Your task to perform on an android device: Go to Amazon Image 0: 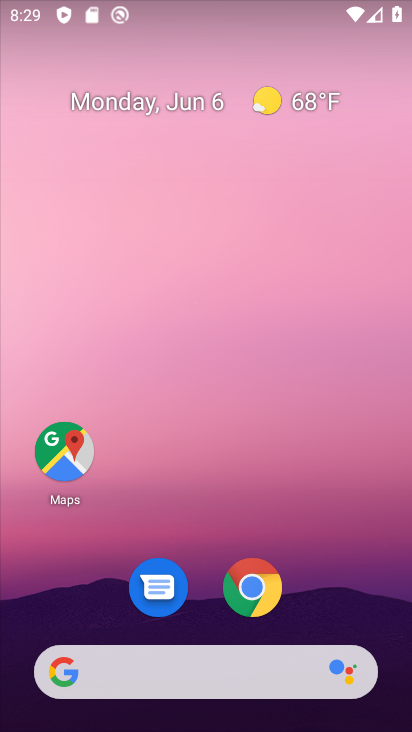
Step 0: click (250, 602)
Your task to perform on an android device: Go to Amazon Image 1: 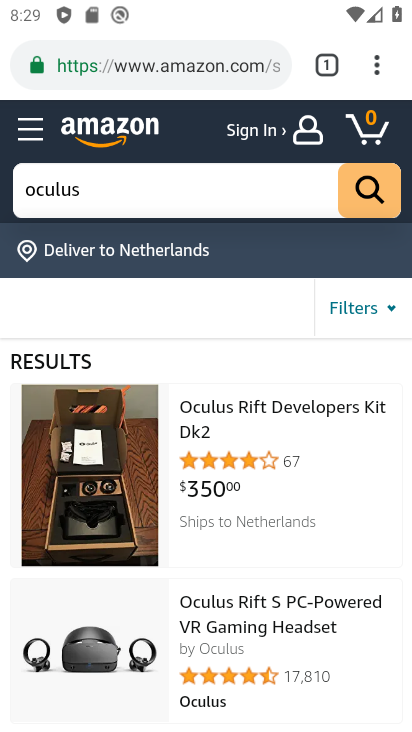
Step 1: task complete